Your task to perform on an android device: turn on sleep mode Image 0: 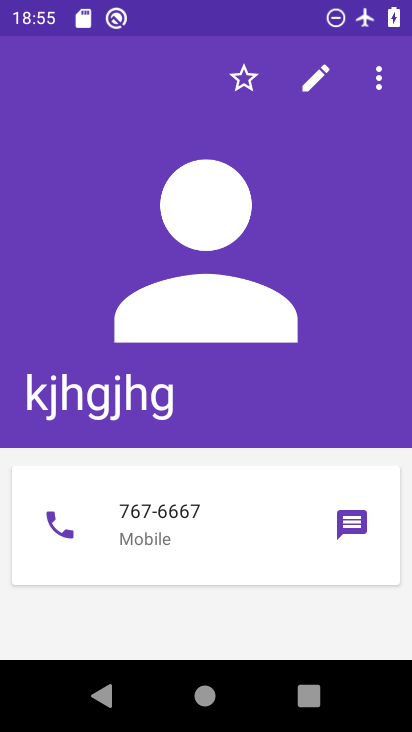
Step 0: press home button
Your task to perform on an android device: turn on sleep mode Image 1: 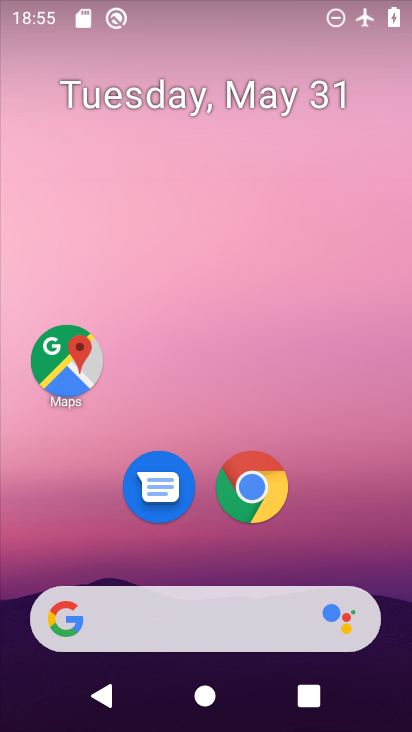
Step 1: drag from (283, 431) to (211, 63)
Your task to perform on an android device: turn on sleep mode Image 2: 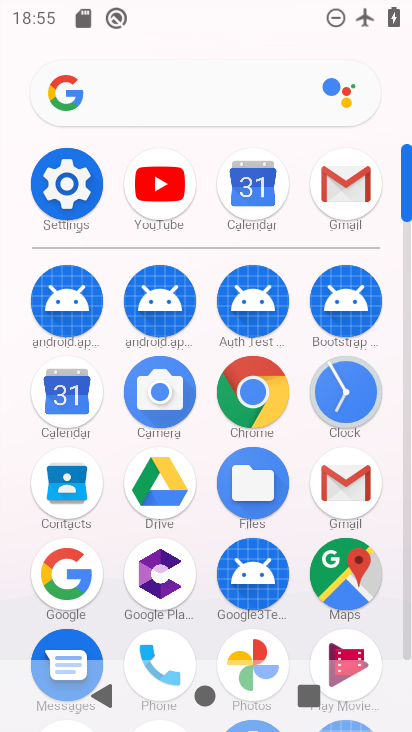
Step 2: click (70, 188)
Your task to perform on an android device: turn on sleep mode Image 3: 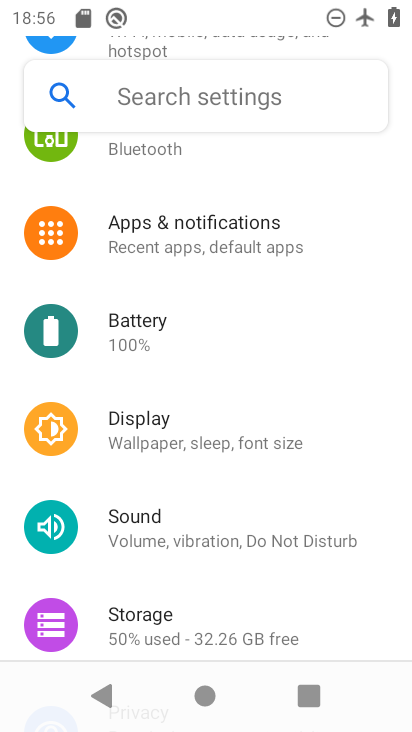
Step 3: click (165, 436)
Your task to perform on an android device: turn on sleep mode Image 4: 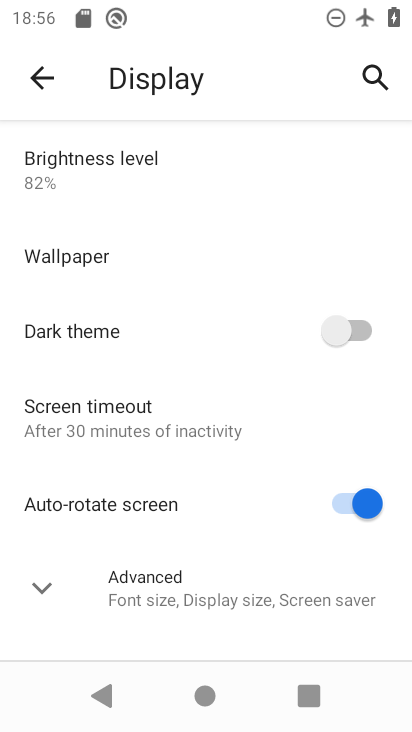
Step 4: task complete